Your task to perform on an android device: change text size in settings app Image 0: 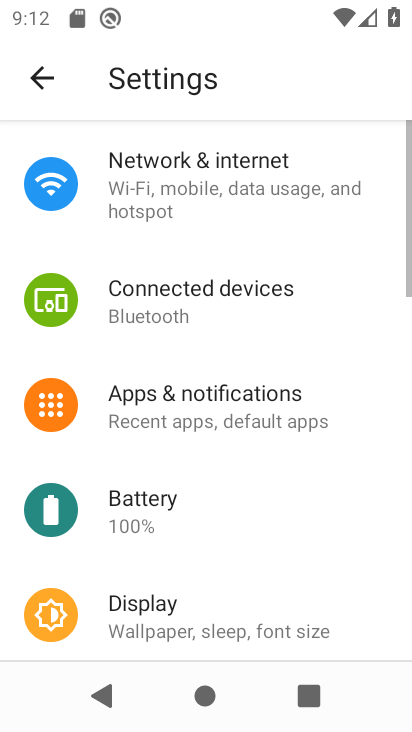
Step 0: press home button
Your task to perform on an android device: change text size in settings app Image 1: 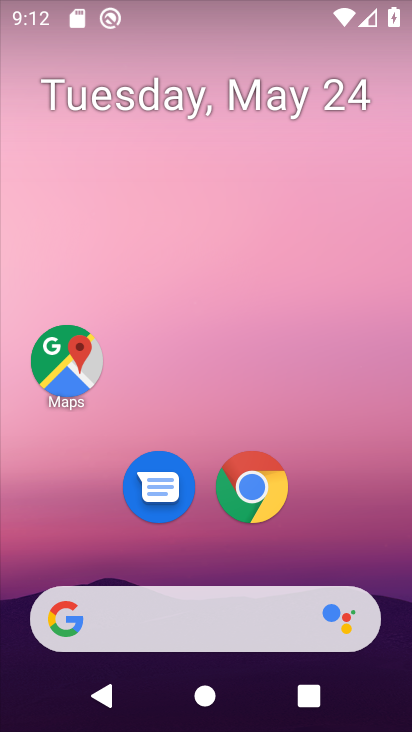
Step 1: drag from (183, 618) to (245, 135)
Your task to perform on an android device: change text size in settings app Image 2: 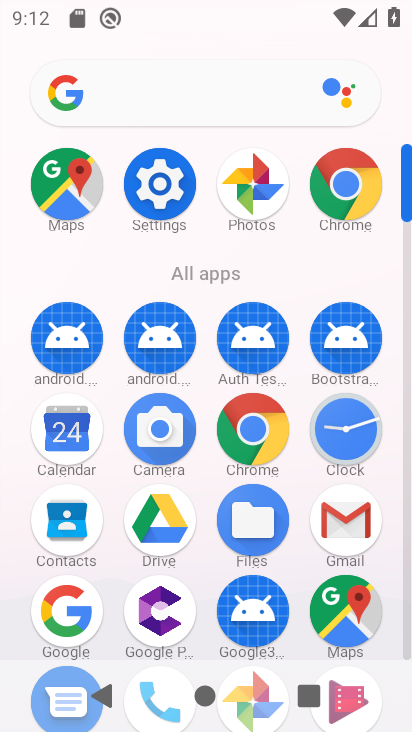
Step 2: click (161, 193)
Your task to perform on an android device: change text size in settings app Image 3: 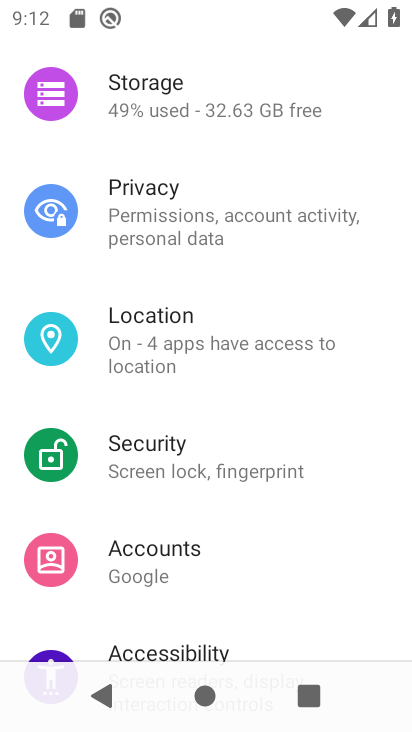
Step 3: drag from (297, 269) to (346, 686)
Your task to perform on an android device: change text size in settings app Image 4: 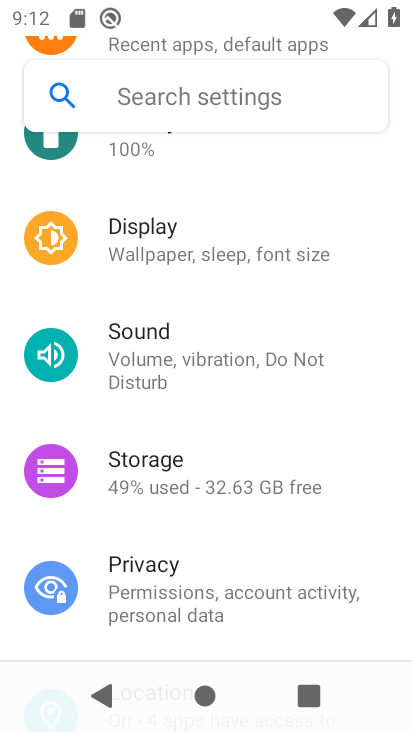
Step 4: click (224, 249)
Your task to perform on an android device: change text size in settings app Image 5: 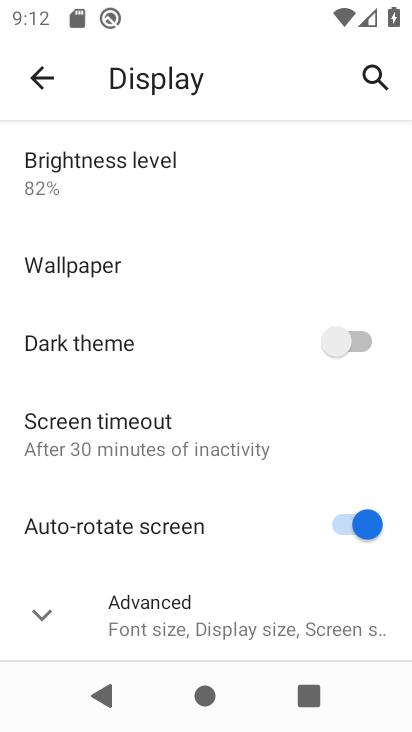
Step 5: drag from (215, 554) to (254, 198)
Your task to perform on an android device: change text size in settings app Image 6: 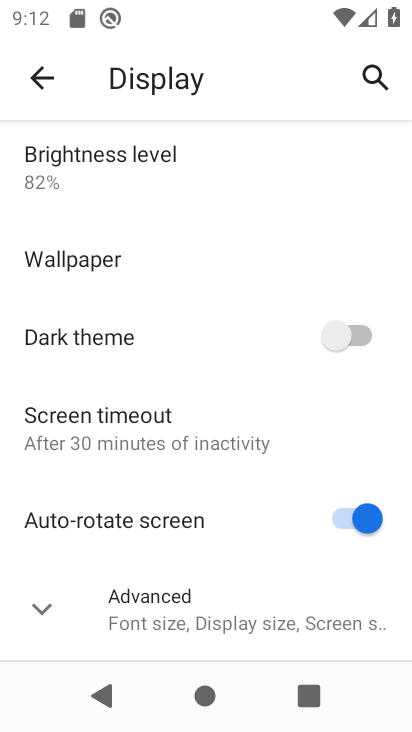
Step 6: click (127, 606)
Your task to perform on an android device: change text size in settings app Image 7: 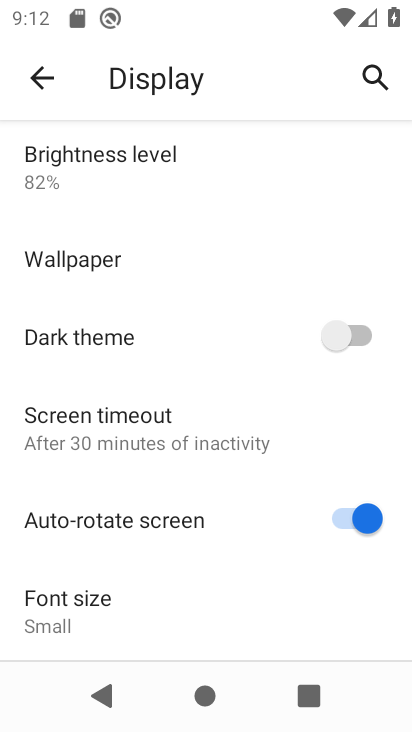
Step 7: drag from (214, 580) to (259, 264)
Your task to perform on an android device: change text size in settings app Image 8: 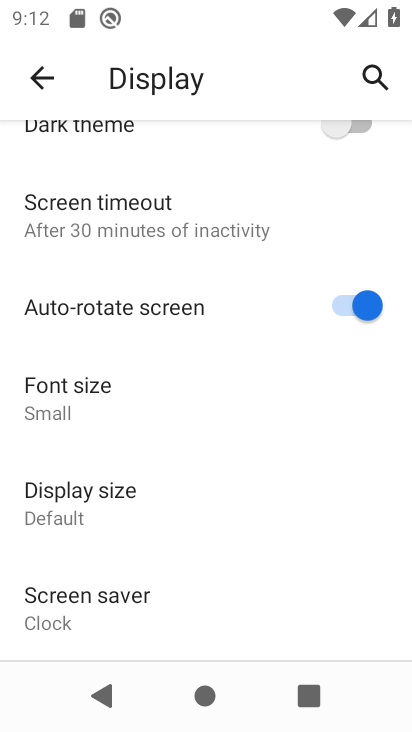
Step 8: click (81, 392)
Your task to perform on an android device: change text size in settings app Image 9: 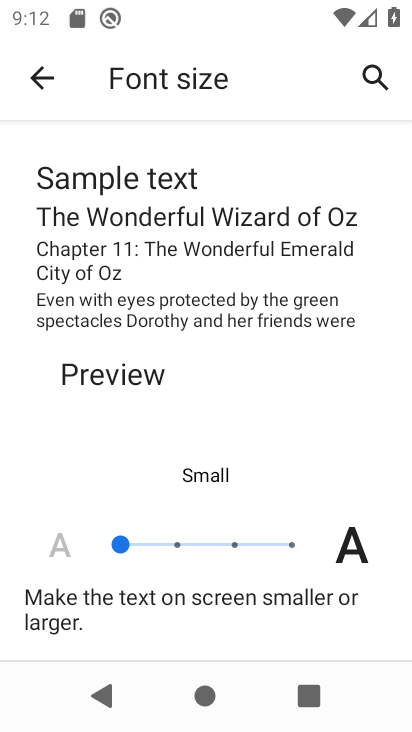
Step 9: click (177, 544)
Your task to perform on an android device: change text size in settings app Image 10: 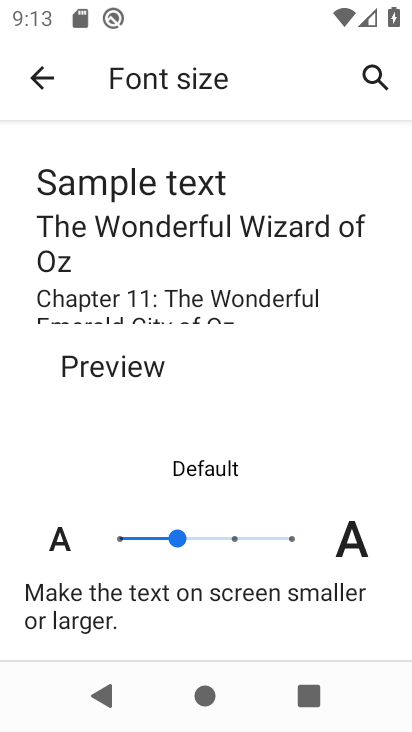
Step 10: task complete